Your task to perform on an android device: Search for razer nari on ebay, select the first entry, add it to the cart, then select checkout. Image 0: 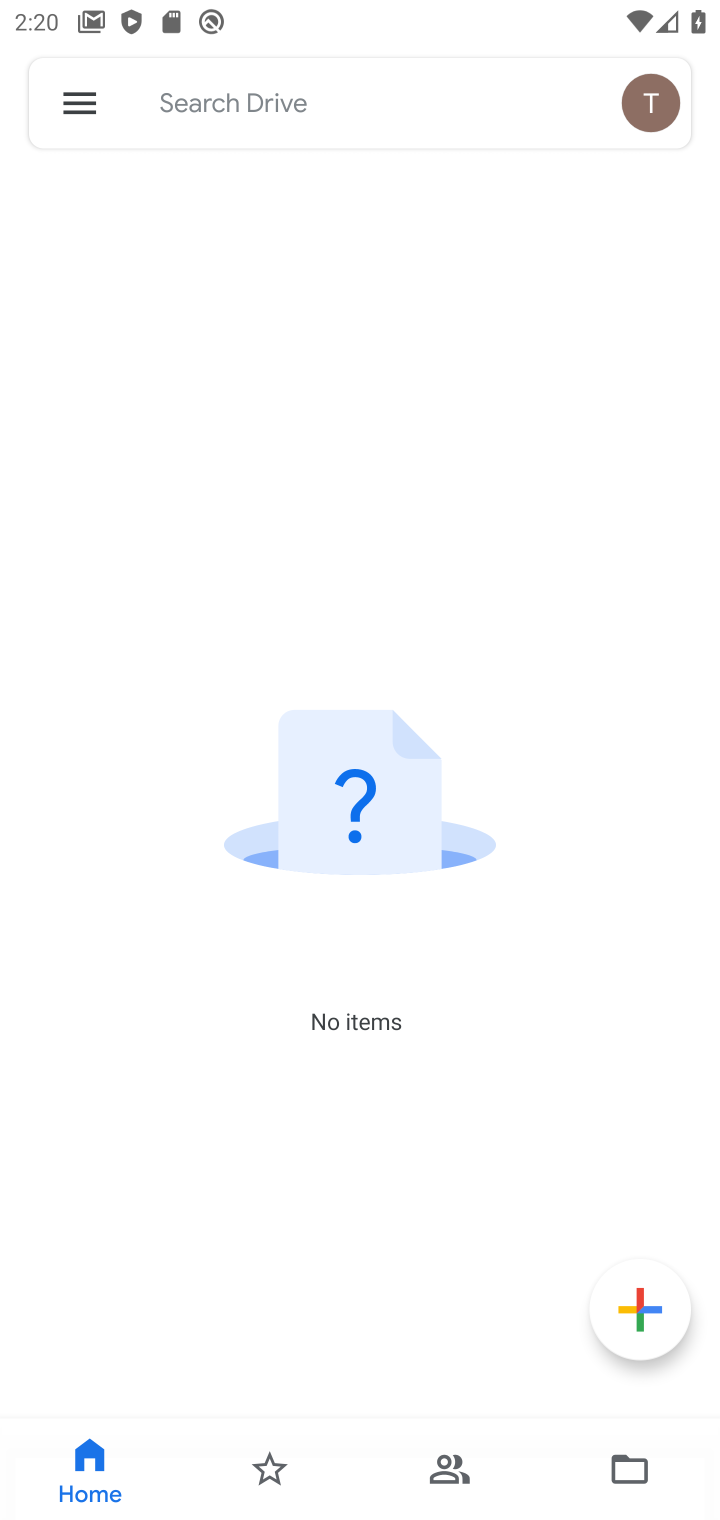
Step 0: press home button
Your task to perform on an android device: Search for razer nari on ebay, select the first entry, add it to the cart, then select checkout. Image 1: 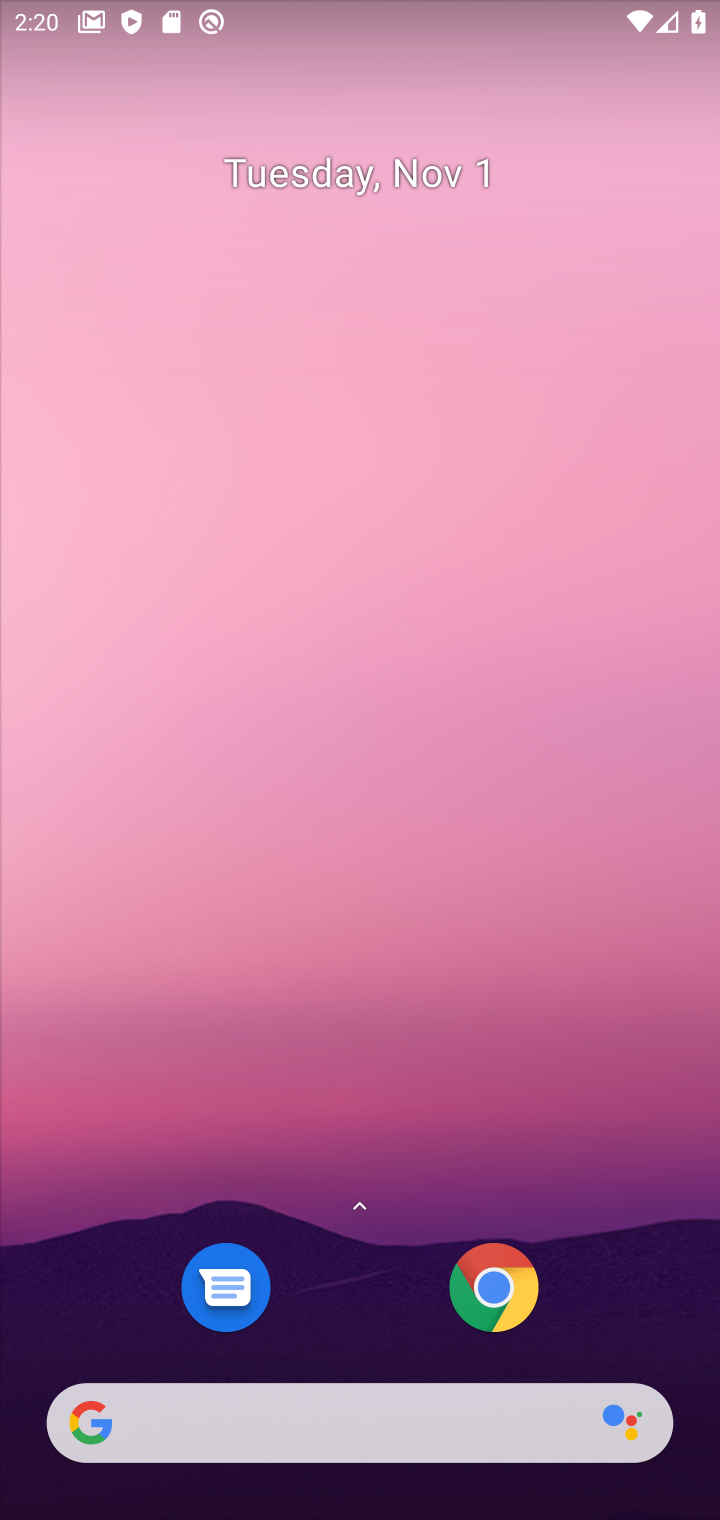
Step 1: drag from (300, 1333) to (689, 45)
Your task to perform on an android device: Search for razer nari on ebay, select the first entry, add it to the cart, then select checkout. Image 2: 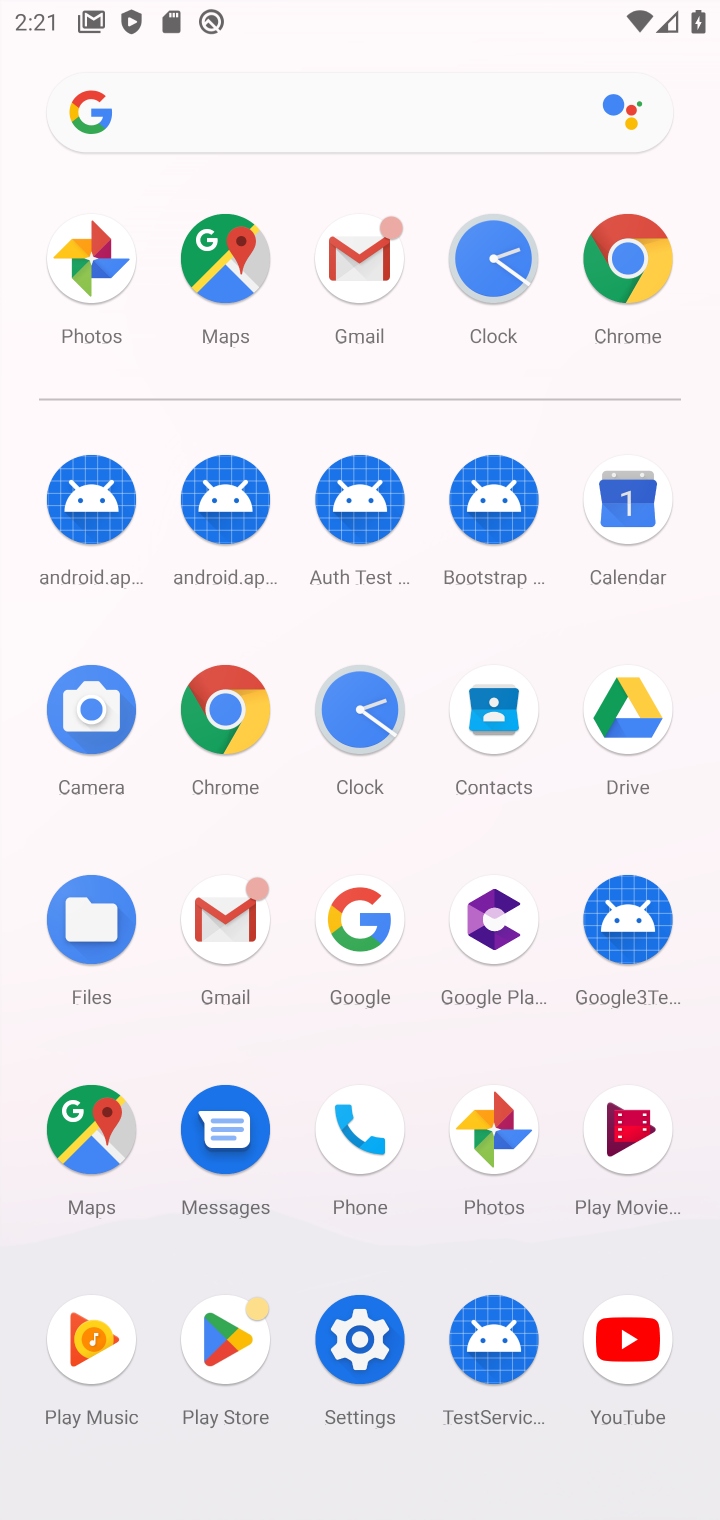
Step 2: click (226, 716)
Your task to perform on an android device: Search for razer nari on ebay, select the first entry, add it to the cart, then select checkout. Image 3: 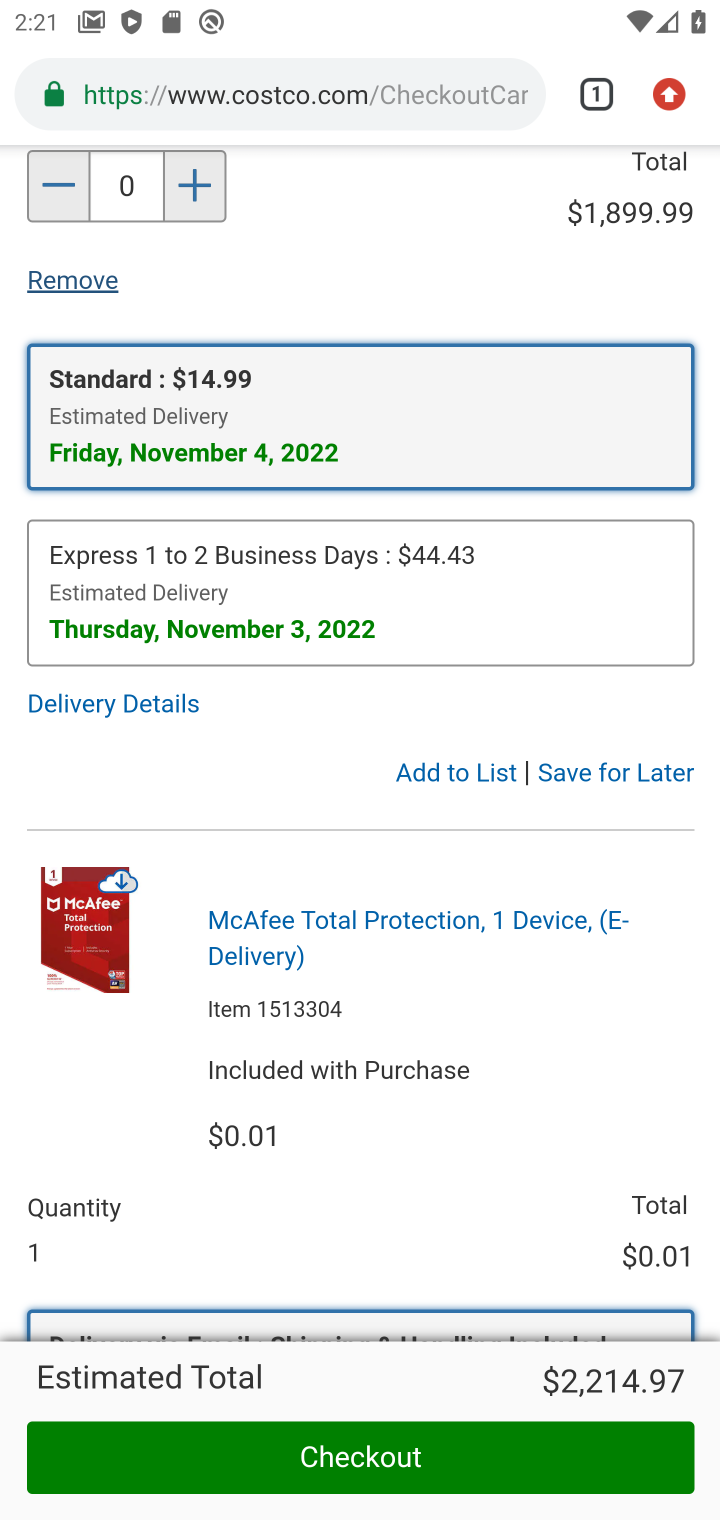
Step 3: click (386, 88)
Your task to perform on an android device: Search for razer nari on ebay, select the first entry, add it to the cart, then select checkout. Image 4: 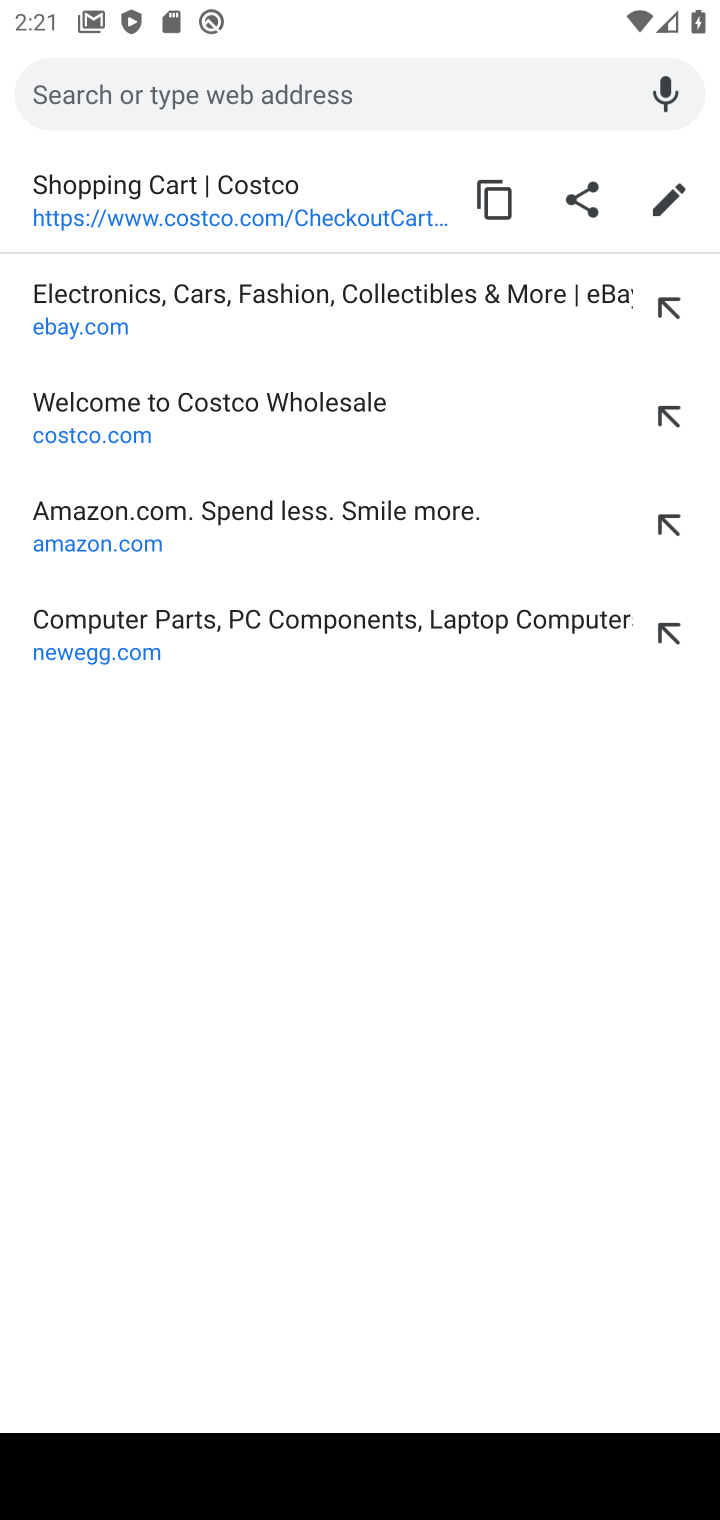
Step 4: type "ebay.com"
Your task to perform on an android device: Search for razer nari on ebay, select the first entry, add it to the cart, then select checkout. Image 5: 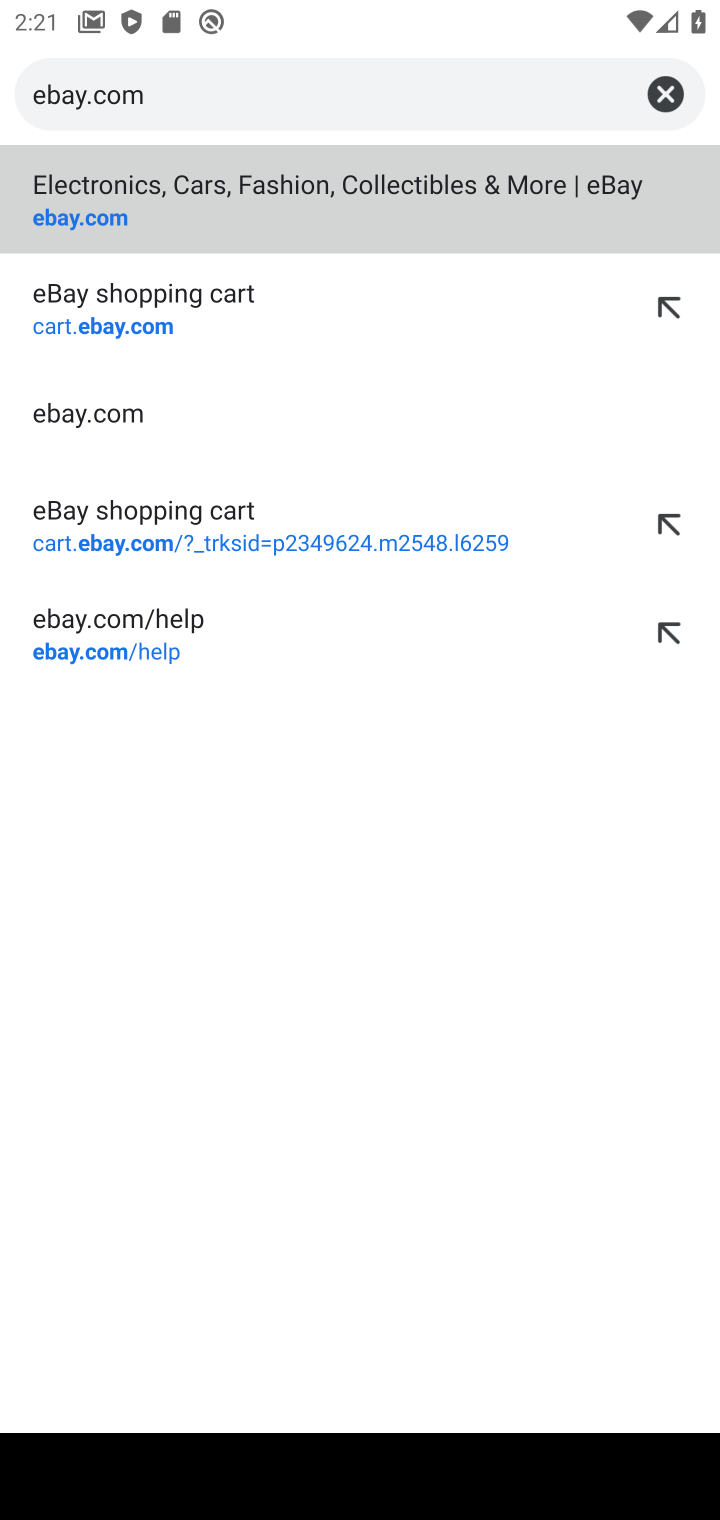
Step 5: press enter
Your task to perform on an android device: Search for razer nari on ebay, select the first entry, add it to the cart, then select checkout. Image 6: 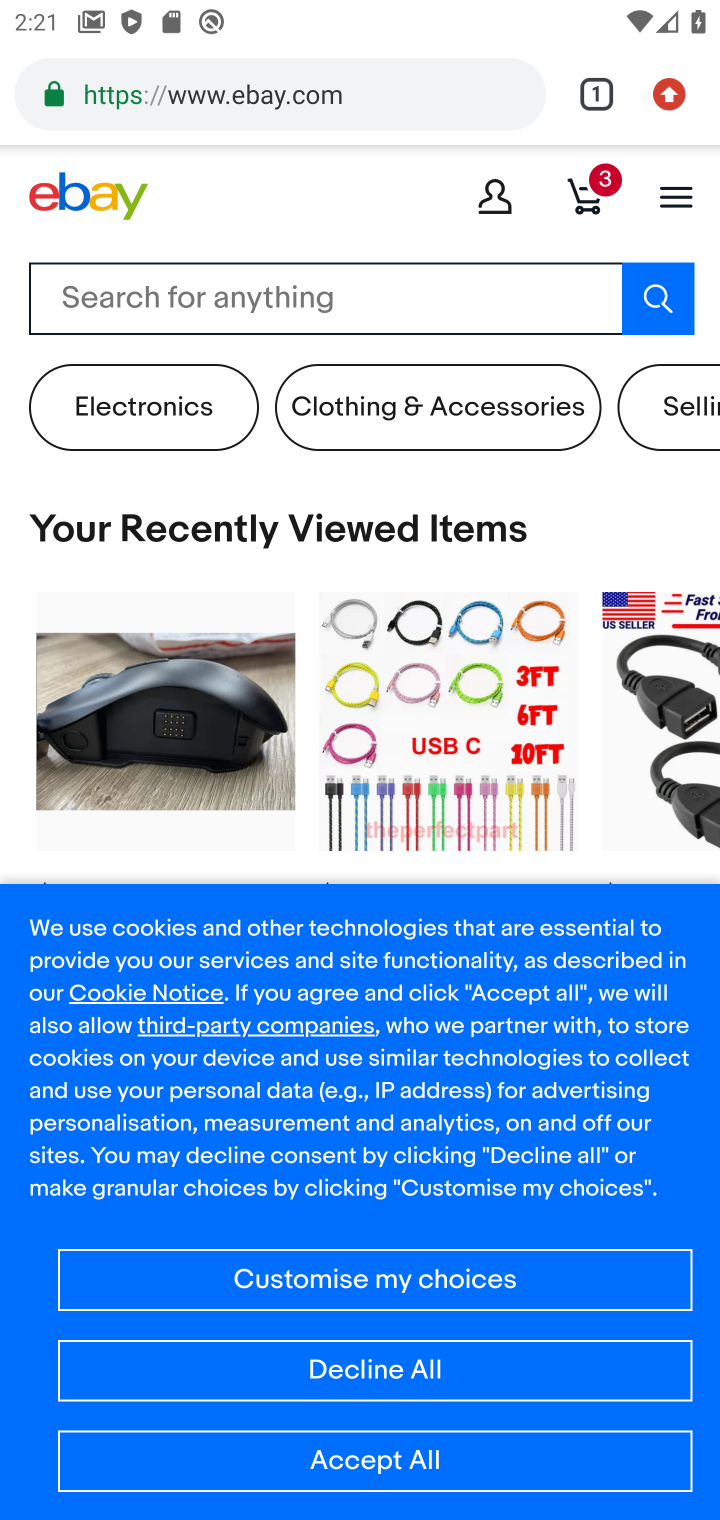
Step 6: click (452, 297)
Your task to perform on an android device: Search for razer nari on ebay, select the first entry, add it to the cart, then select checkout. Image 7: 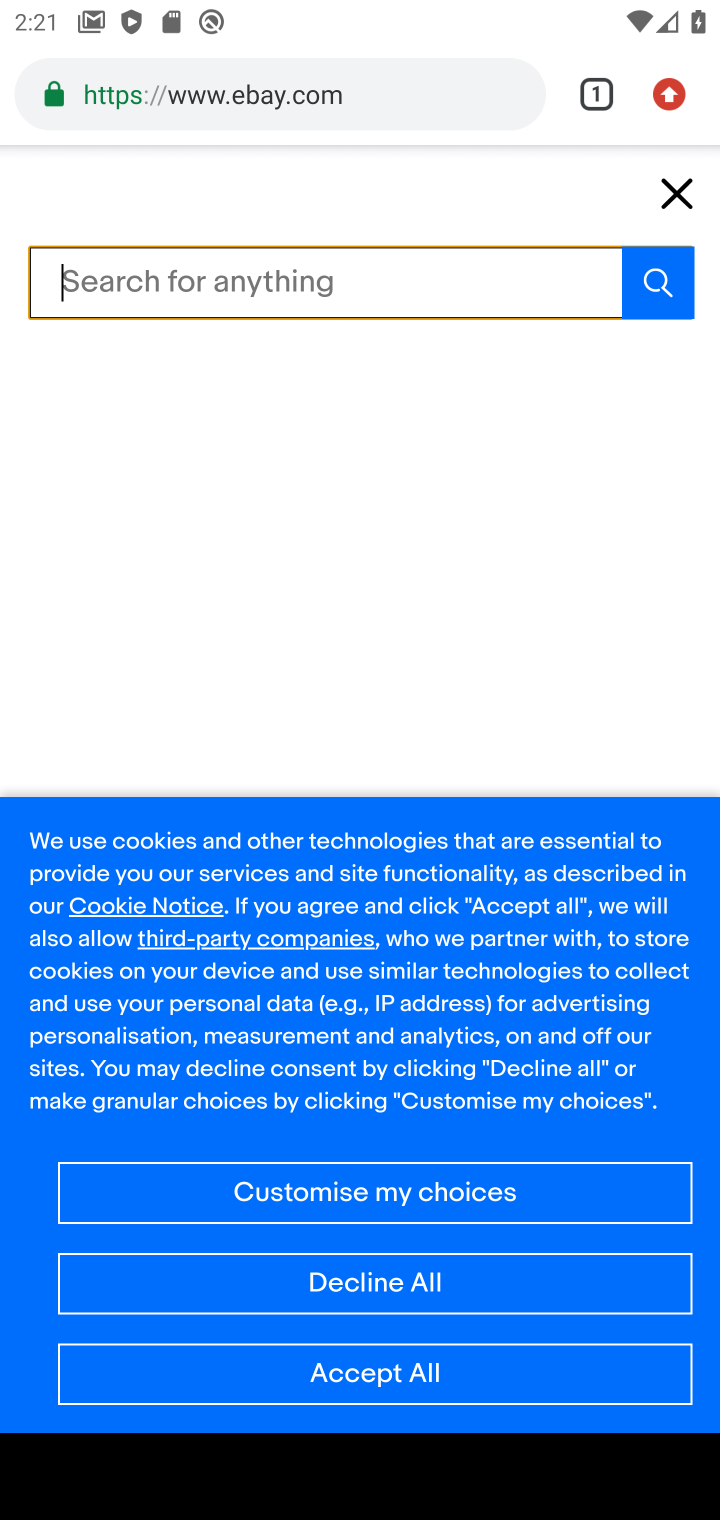
Step 7: type "razer nari"
Your task to perform on an android device: Search for razer nari on ebay, select the first entry, add it to the cart, then select checkout. Image 8: 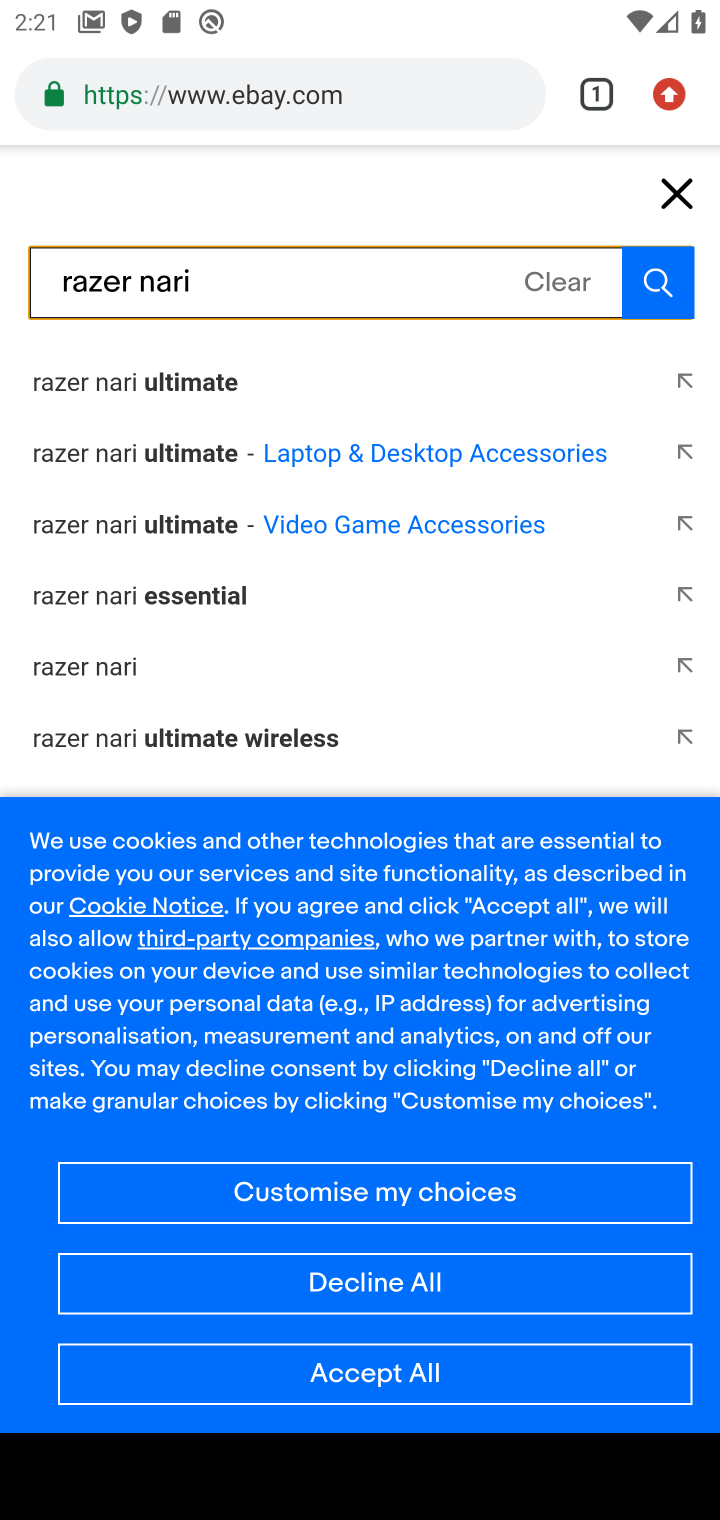
Step 8: press enter
Your task to perform on an android device: Search for razer nari on ebay, select the first entry, add it to the cart, then select checkout. Image 9: 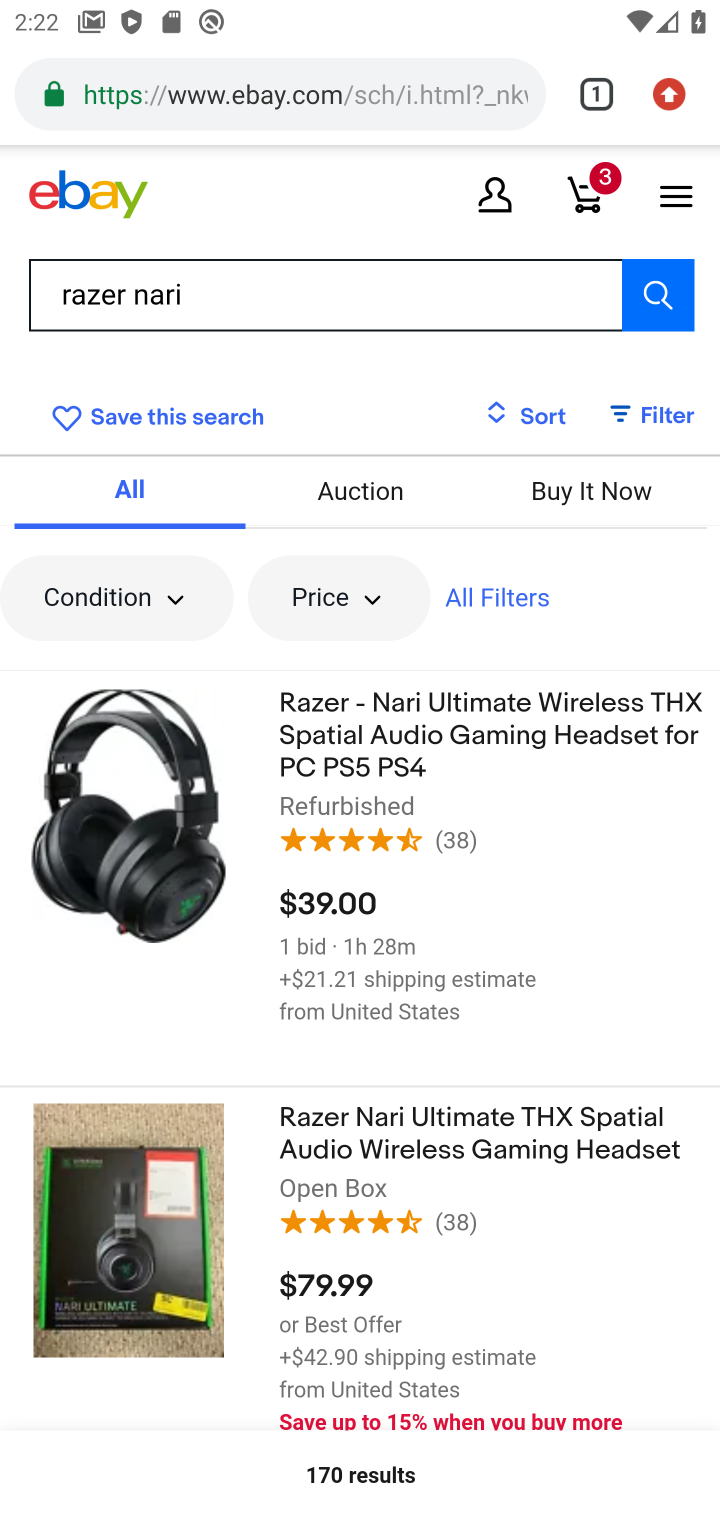
Step 9: drag from (446, 955) to (408, 463)
Your task to perform on an android device: Search for razer nari on ebay, select the first entry, add it to the cart, then select checkout. Image 10: 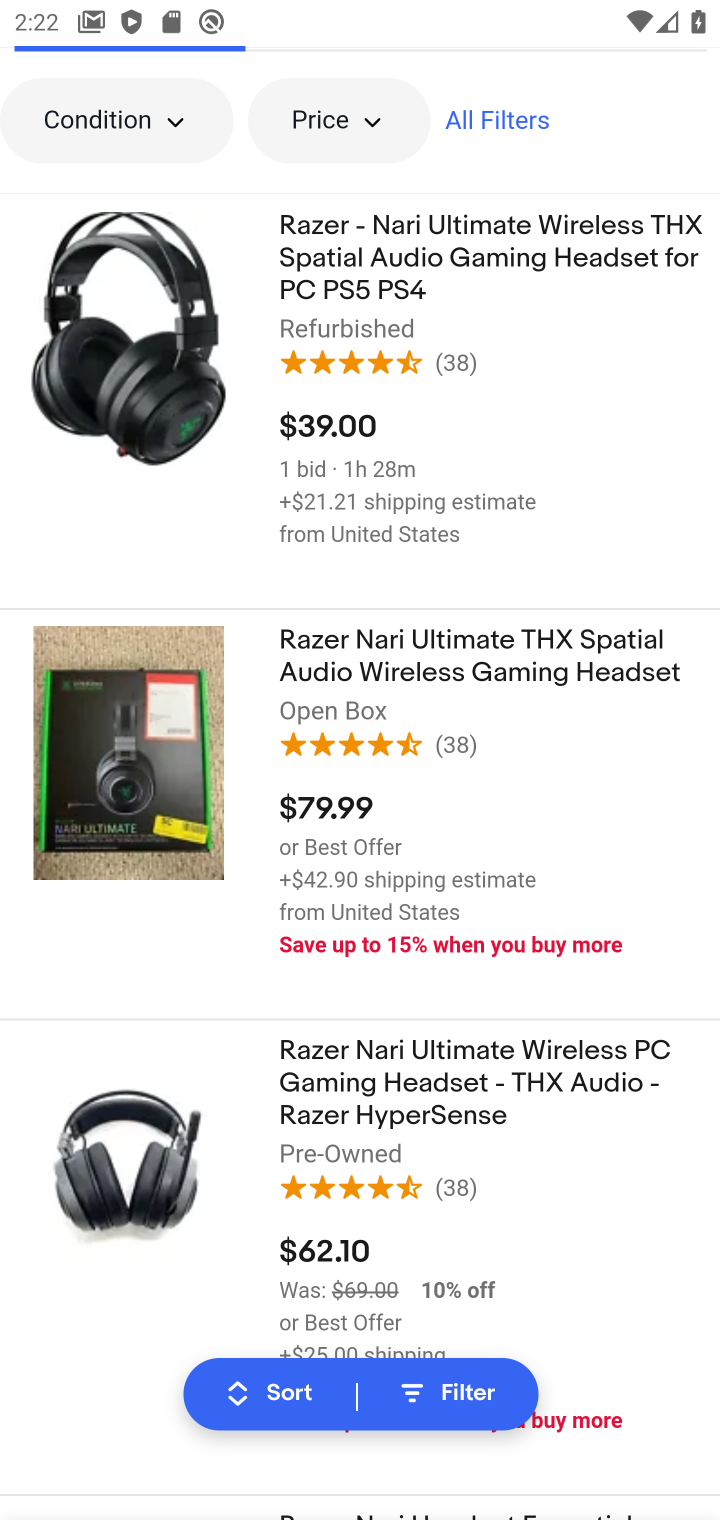
Step 10: click (344, 315)
Your task to perform on an android device: Search for razer nari on ebay, select the first entry, add it to the cart, then select checkout. Image 11: 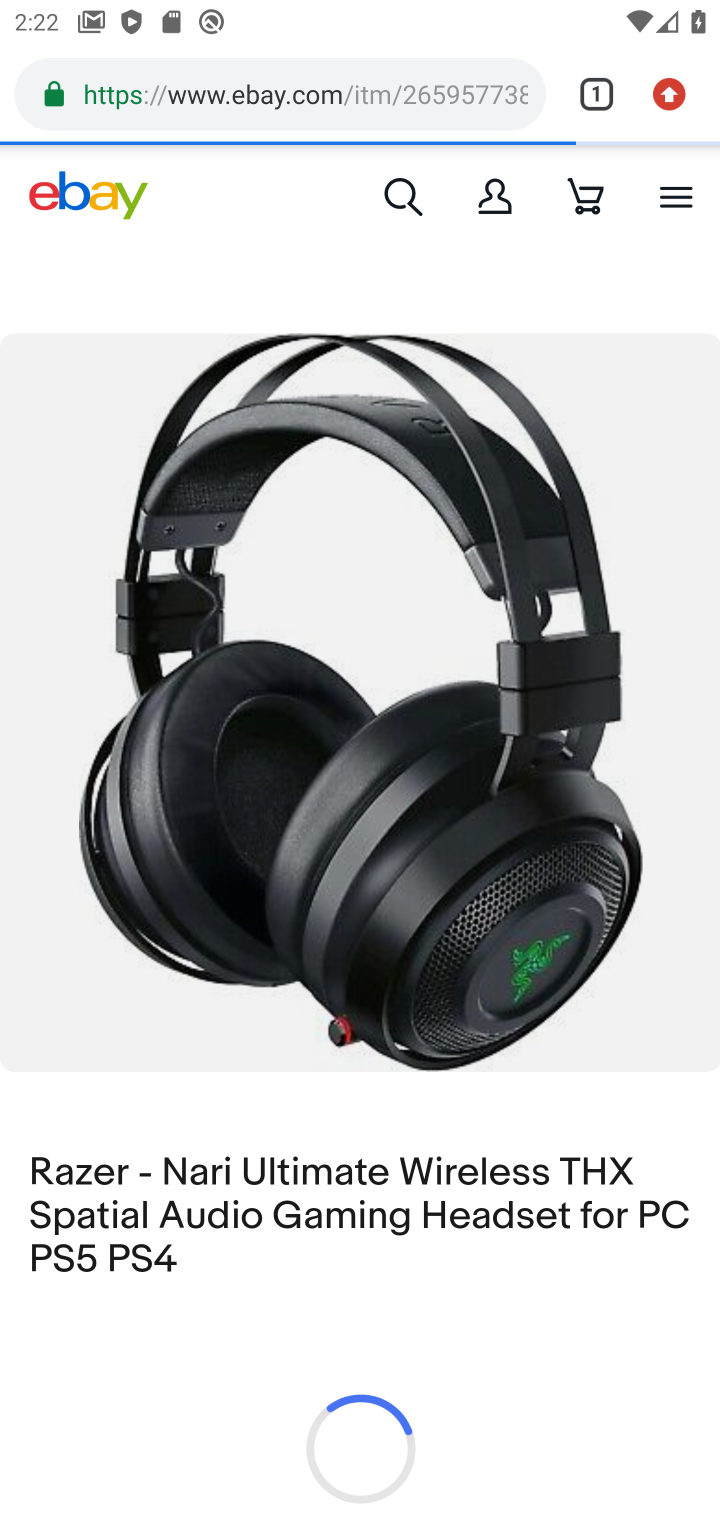
Step 11: task complete